Your task to perform on an android device: open device folders in google photos Image 0: 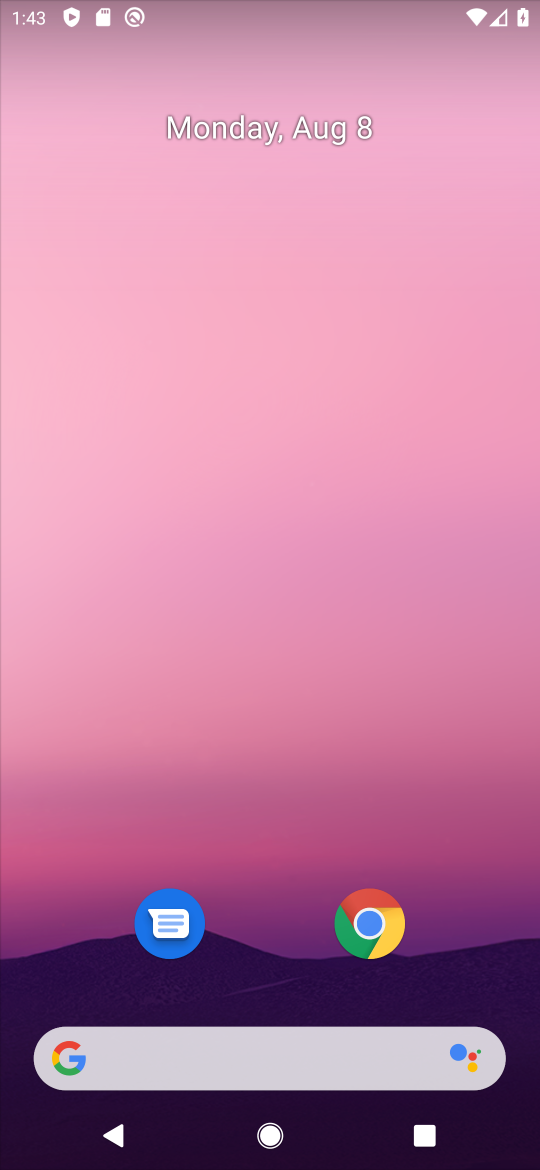
Step 0: drag from (267, 833) to (282, 343)
Your task to perform on an android device: open device folders in google photos Image 1: 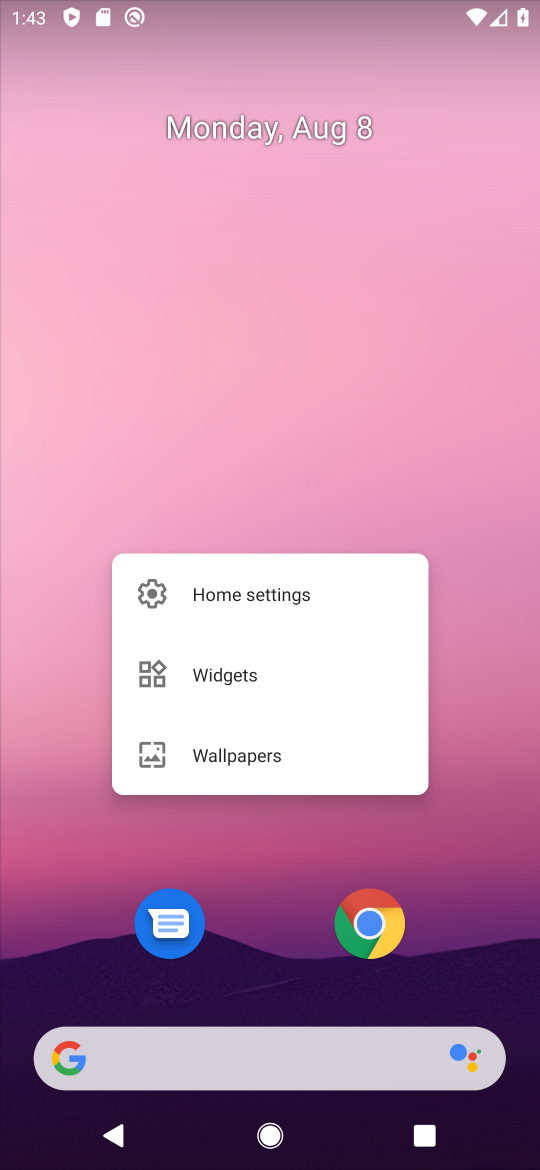
Step 1: click (282, 343)
Your task to perform on an android device: open device folders in google photos Image 2: 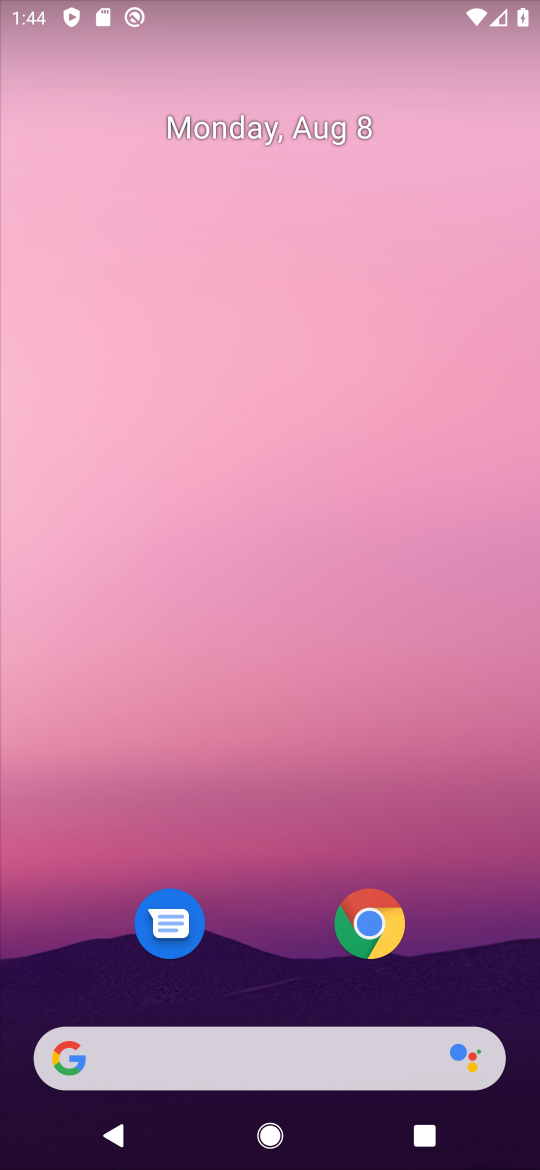
Step 2: drag from (263, 809) to (328, 98)
Your task to perform on an android device: open device folders in google photos Image 3: 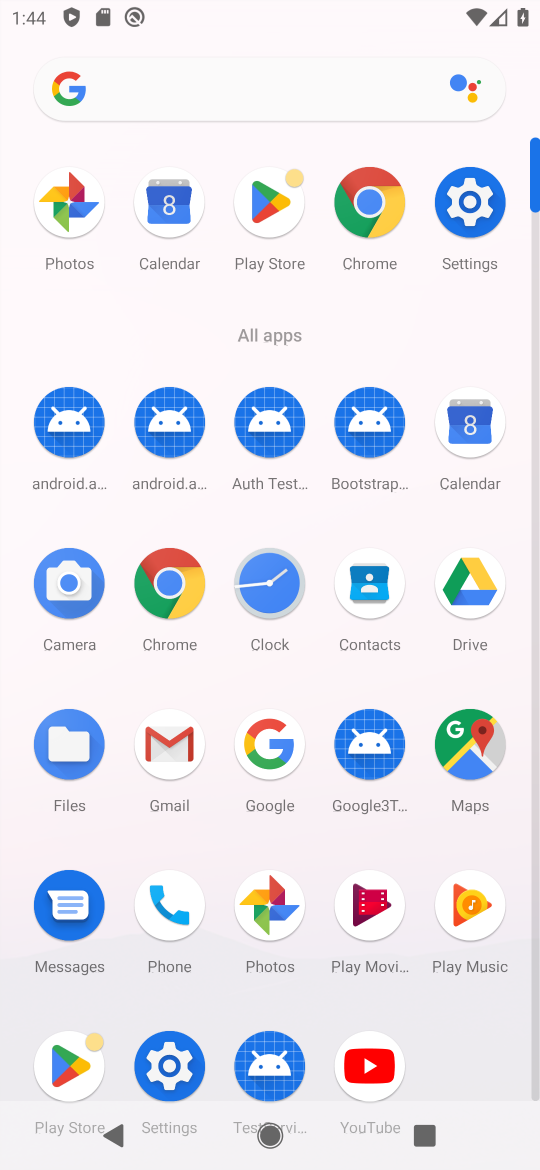
Step 3: click (267, 917)
Your task to perform on an android device: open device folders in google photos Image 4: 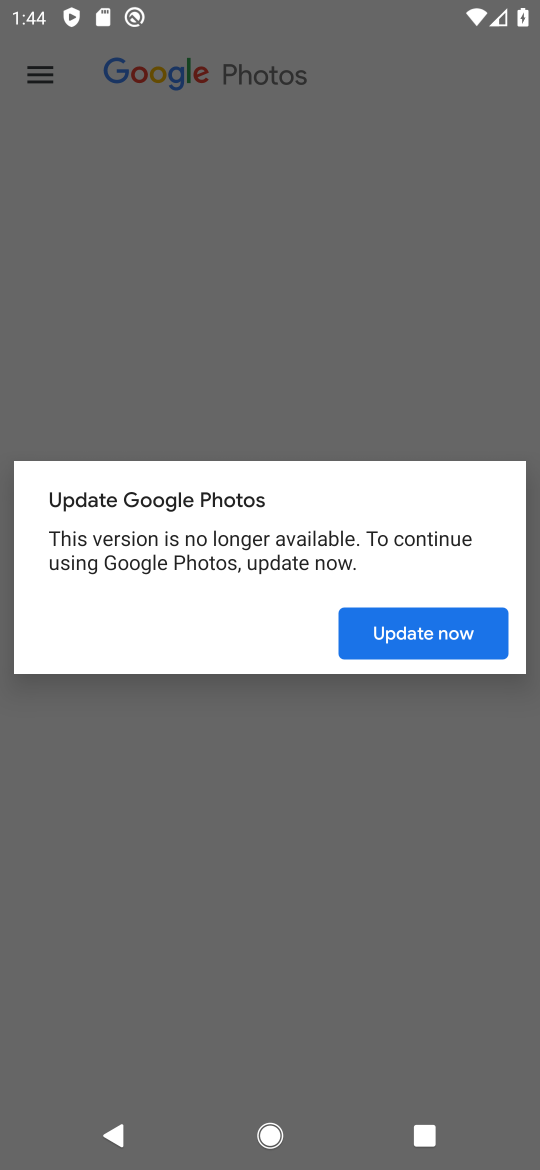
Step 4: task complete